Your task to perform on an android device: Open calendar and show me the third week of next month Image 0: 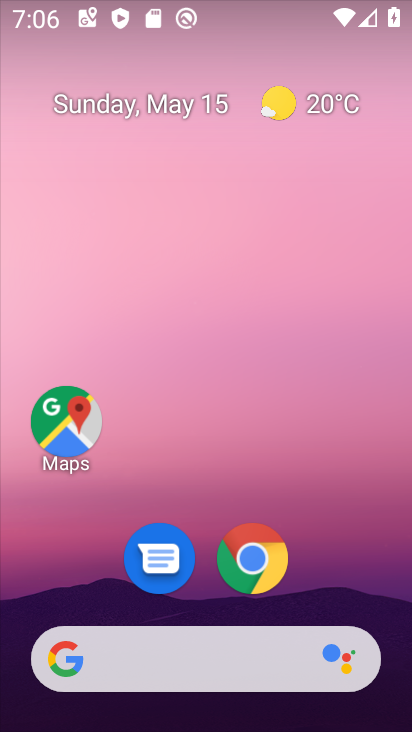
Step 0: drag from (225, 430) to (143, 33)
Your task to perform on an android device: Open calendar and show me the third week of next month Image 1: 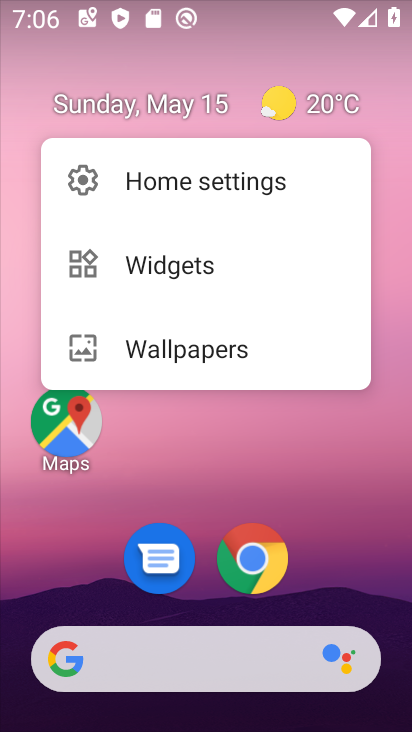
Step 1: click (304, 429)
Your task to perform on an android device: Open calendar and show me the third week of next month Image 2: 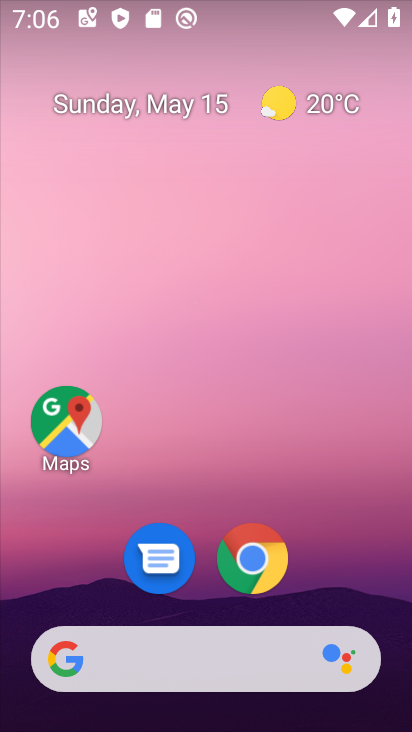
Step 2: drag from (335, 550) to (246, 144)
Your task to perform on an android device: Open calendar and show me the third week of next month Image 3: 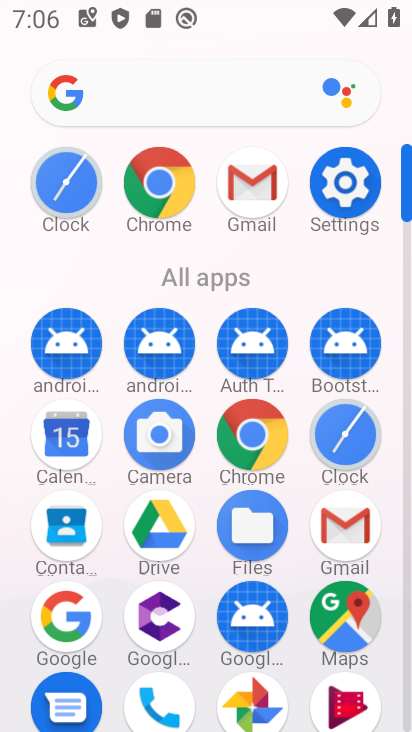
Step 3: click (65, 440)
Your task to perform on an android device: Open calendar and show me the third week of next month Image 4: 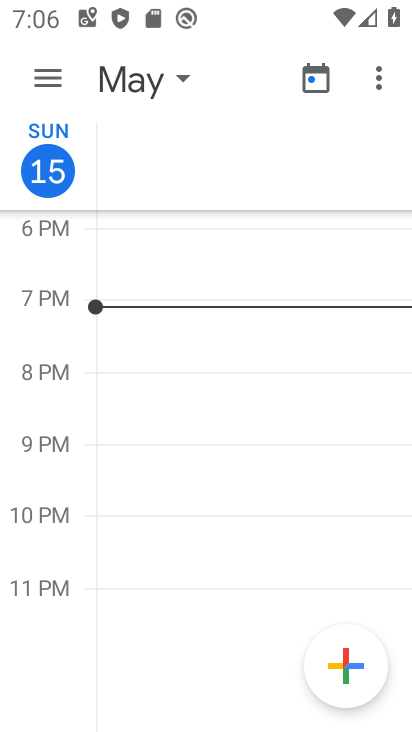
Step 4: click (44, 80)
Your task to perform on an android device: Open calendar and show me the third week of next month Image 5: 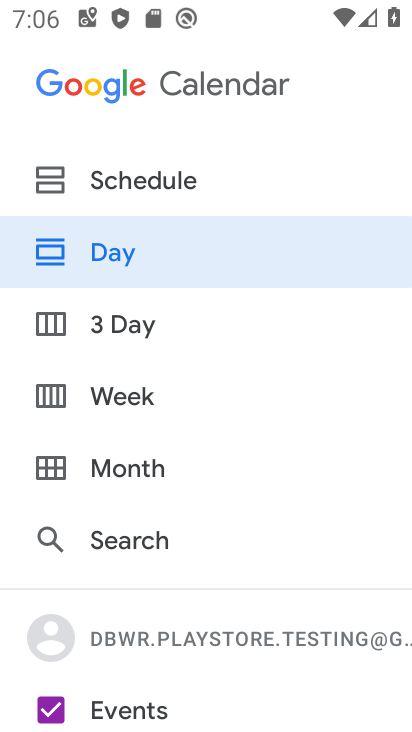
Step 5: click (129, 393)
Your task to perform on an android device: Open calendar and show me the third week of next month Image 6: 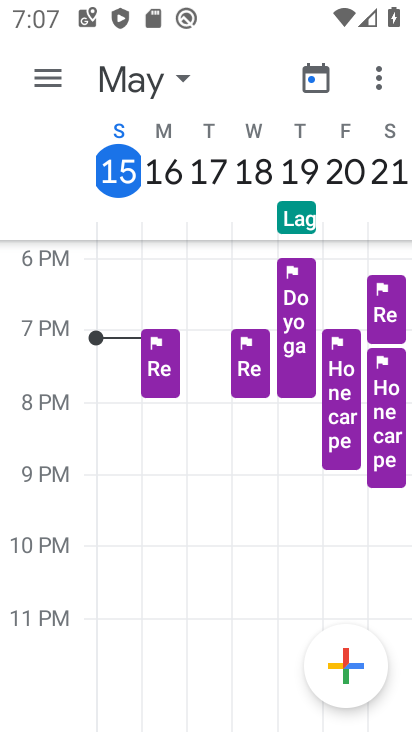
Step 6: click (178, 71)
Your task to perform on an android device: Open calendar and show me the third week of next month Image 7: 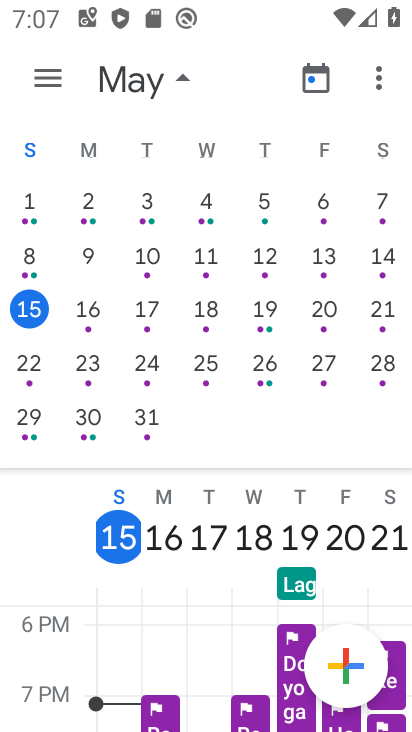
Step 7: drag from (382, 274) to (49, 386)
Your task to perform on an android device: Open calendar and show me the third week of next month Image 8: 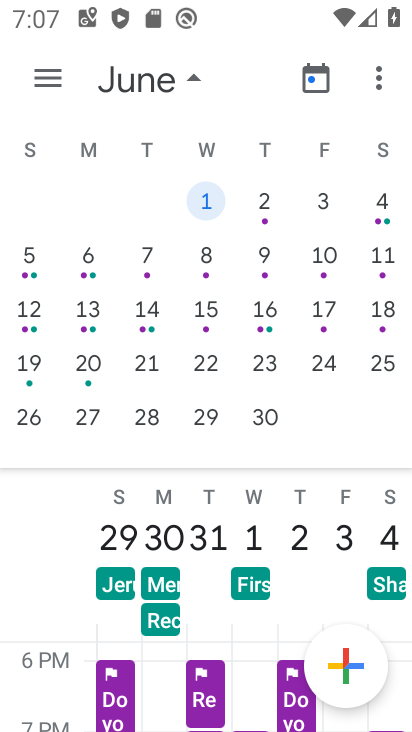
Step 8: click (206, 311)
Your task to perform on an android device: Open calendar and show me the third week of next month Image 9: 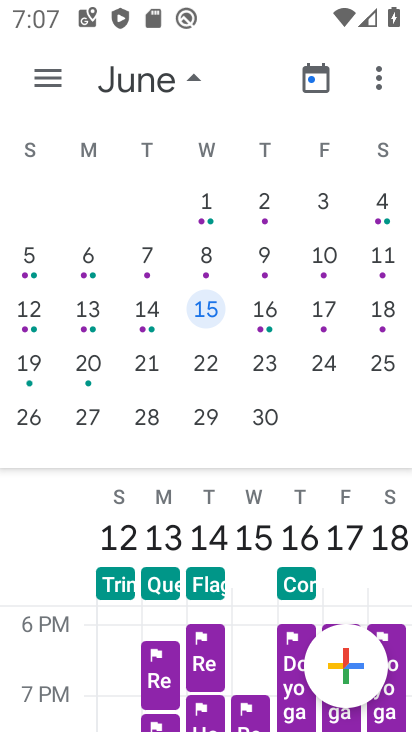
Step 9: task complete